Your task to perform on an android device: Go to privacy settings Image 0: 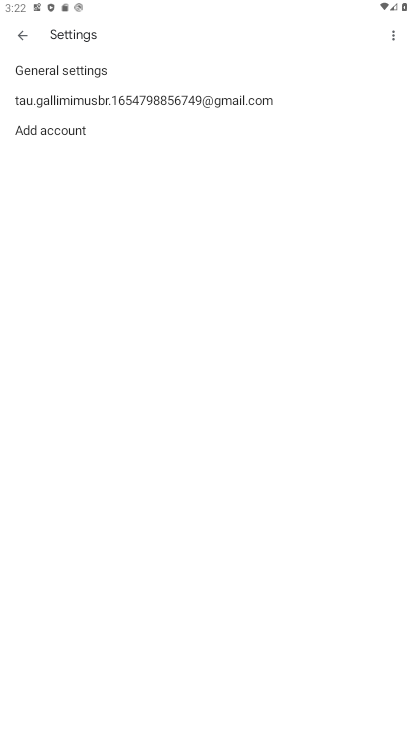
Step 0: press home button
Your task to perform on an android device: Go to privacy settings Image 1: 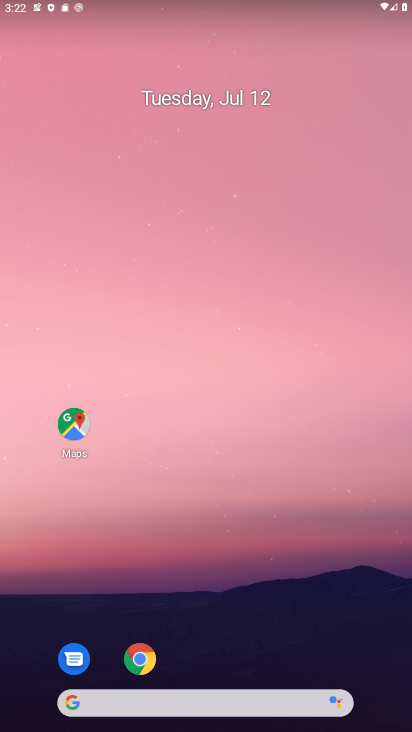
Step 1: drag from (193, 720) to (192, 663)
Your task to perform on an android device: Go to privacy settings Image 2: 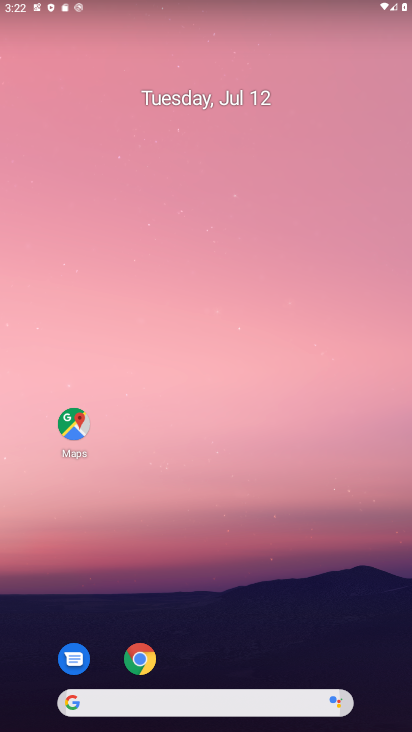
Step 2: drag from (140, 119) to (135, 66)
Your task to perform on an android device: Go to privacy settings Image 3: 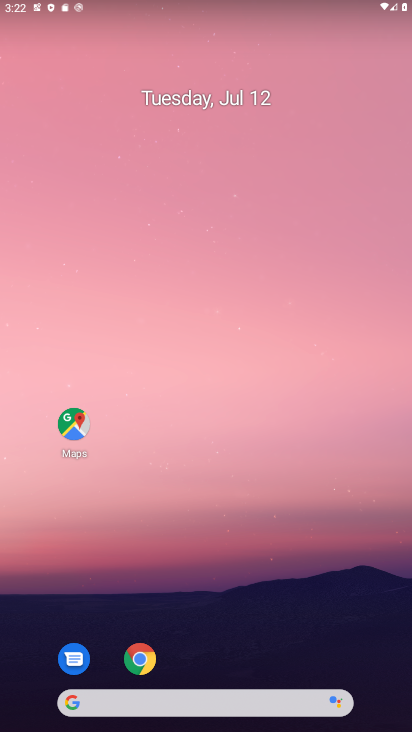
Step 3: drag from (217, 728) to (214, 103)
Your task to perform on an android device: Go to privacy settings Image 4: 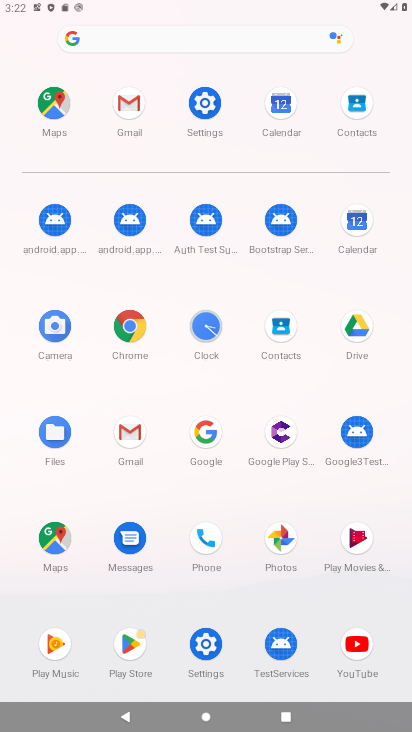
Step 4: click (212, 115)
Your task to perform on an android device: Go to privacy settings Image 5: 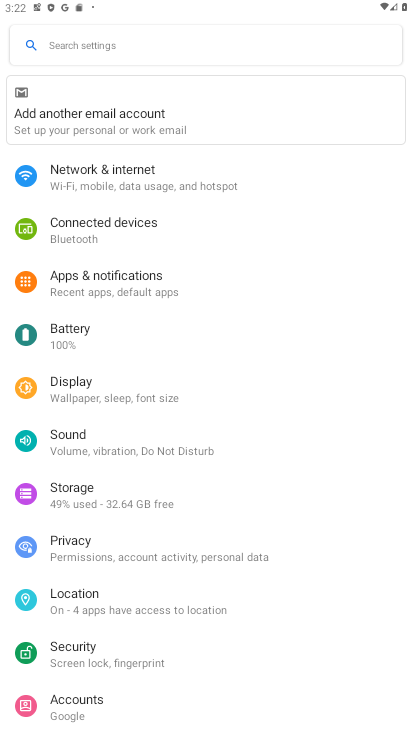
Step 5: click (71, 544)
Your task to perform on an android device: Go to privacy settings Image 6: 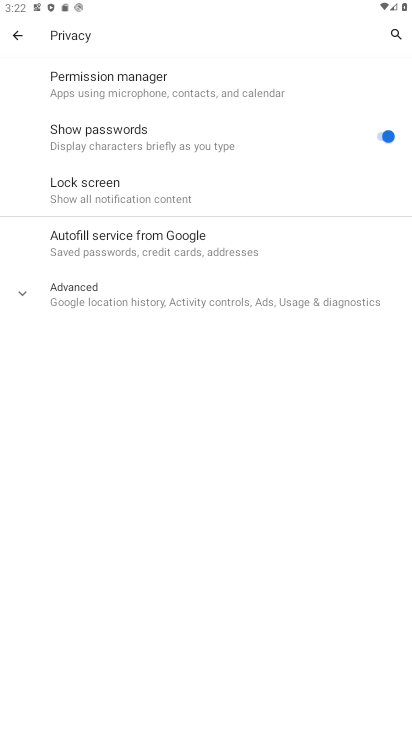
Step 6: task complete